Your task to perform on an android device: Go to Amazon Image 0: 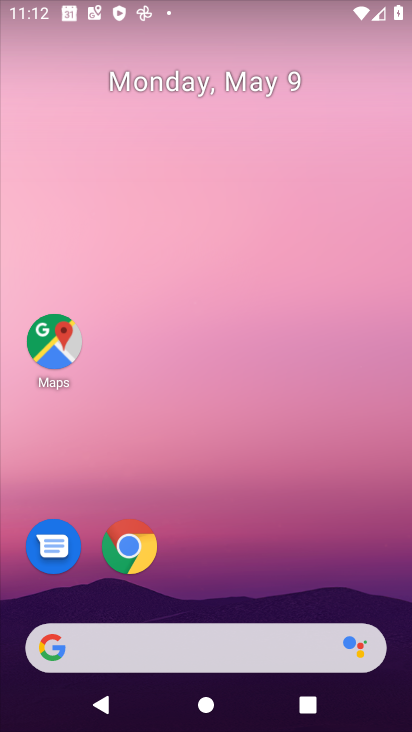
Step 0: click (244, 647)
Your task to perform on an android device: Go to Amazon Image 1: 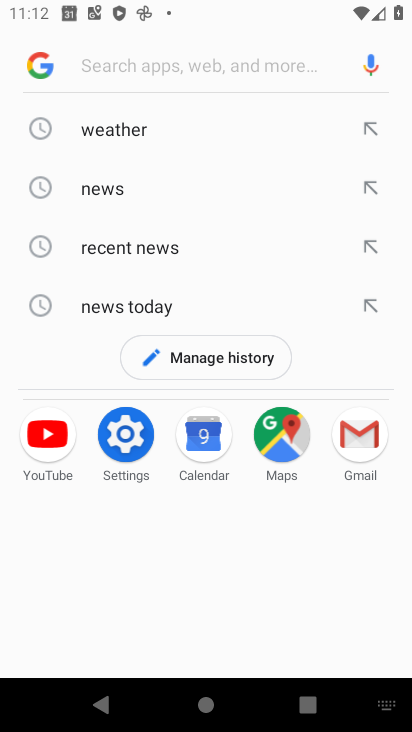
Step 1: type "amazon"
Your task to perform on an android device: Go to Amazon Image 2: 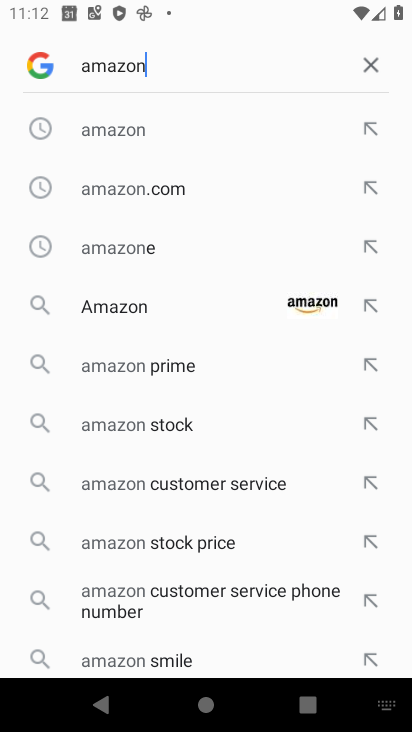
Step 2: click (166, 127)
Your task to perform on an android device: Go to Amazon Image 3: 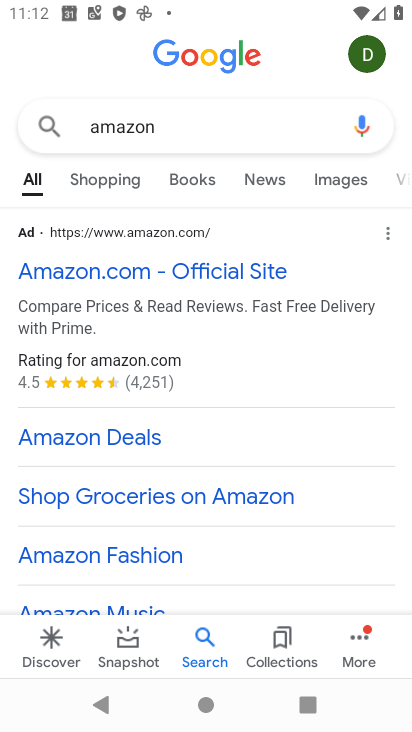
Step 3: click (140, 263)
Your task to perform on an android device: Go to Amazon Image 4: 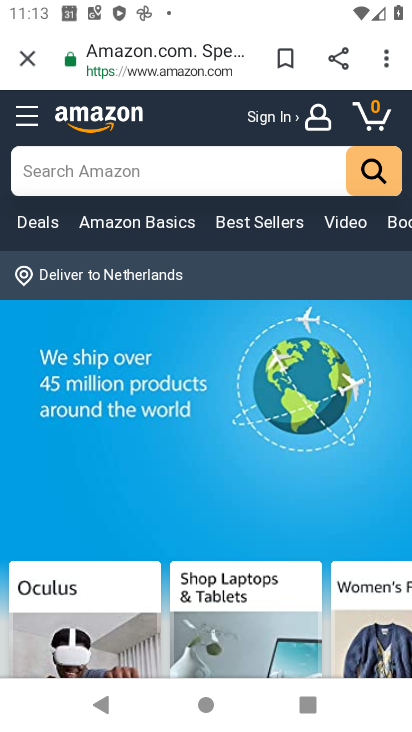
Step 4: task complete